Your task to perform on an android device: Go to Yahoo.com Image 0: 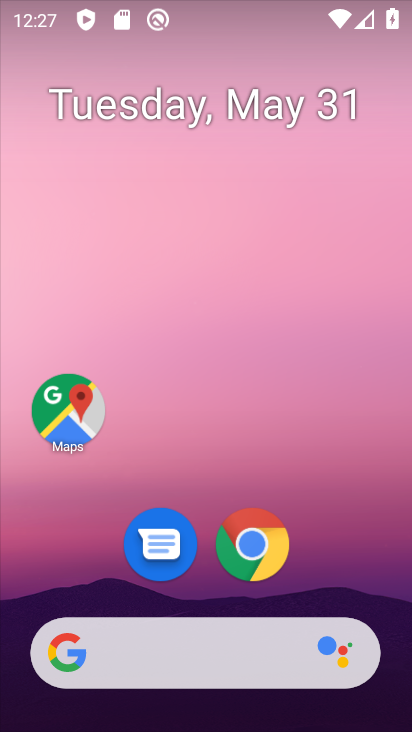
Step 0: click (193, 651)
Your task to perform on an android device: Go to Yahoo.com Image 1: 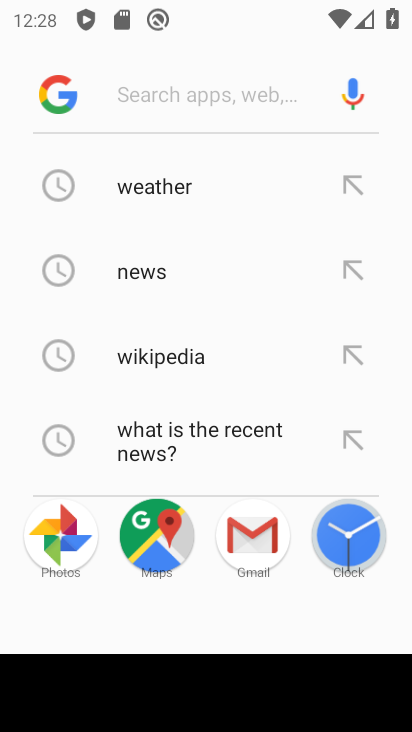
Step 1: type "Yahoo.com"
Your task to perform on an android device: Go to Yahoo.com Image 2: 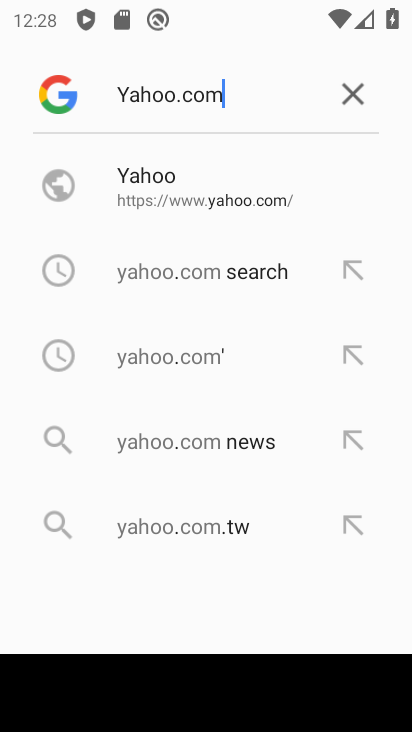
Step 2: click (243, 189)
Your task to perform on an android device: Go to Yahoo.com Image 3: 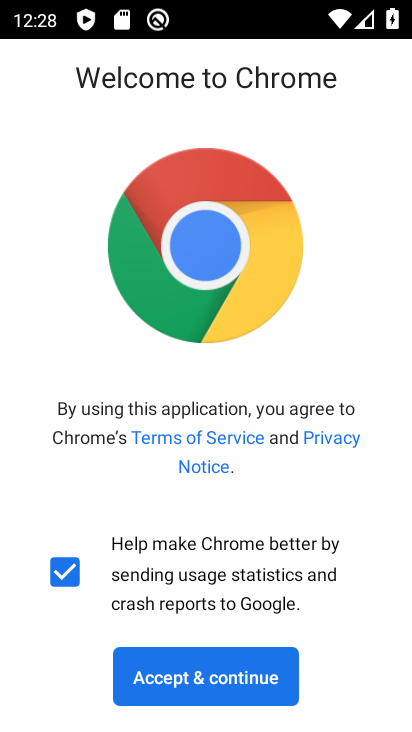
Step 3: click (223, 691)
Your task to perform on an android device: Go to Yahoo.com Image 4: 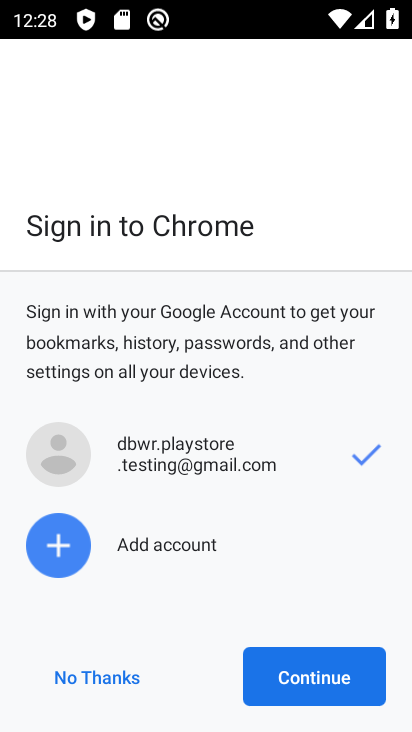
Step 4: click (326, 691)
Your task to perform on an android device: Go to Yahoo.com Image 5: 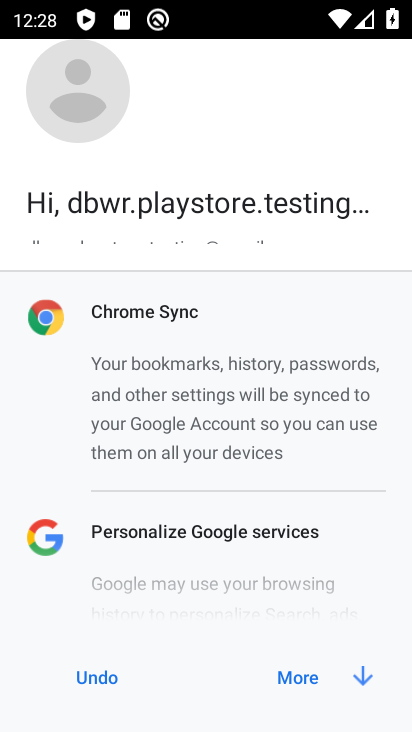
Step 5: click (326, 690)
Your task to perform on an android device: Go to Yahoo.com Image 6: 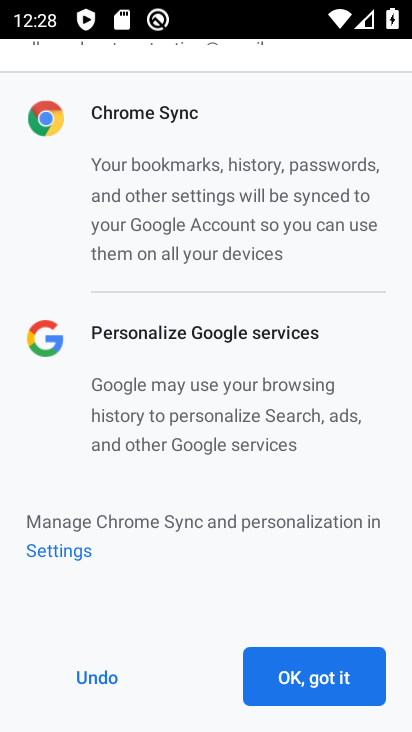
Step 6: click (326, 690)
Your task to perform on an android device: Go to Yahoo.com Image 7: 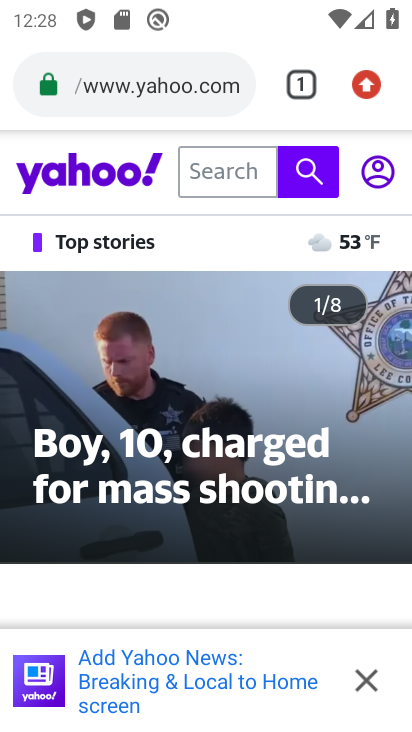
Step 7: task complete